Your task to perform on an android device: Toggle the flashlight Image 0: 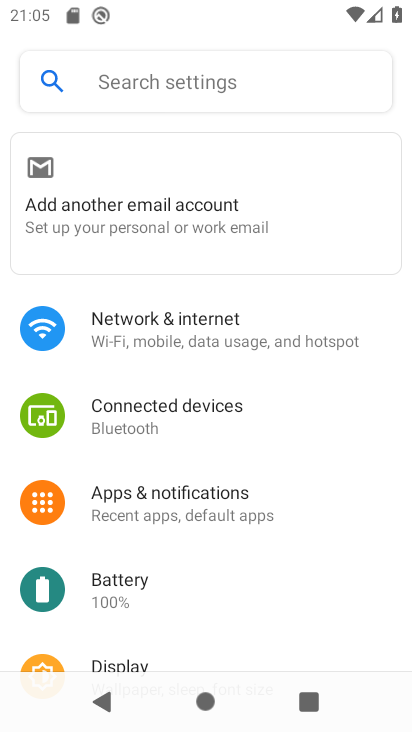
Step 0: click (291, 83)
Your task to perform on an android device: Toggle the flashlight Image 1: 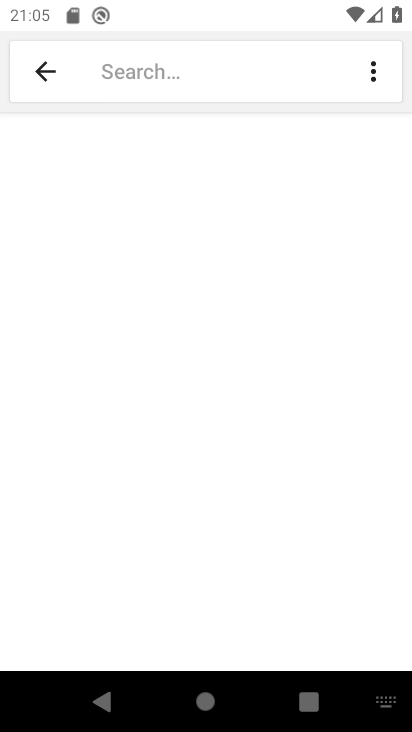
Step 1: type "Flashlight"
Your task to perform on an android device: Toggle the flashlight Image 2: 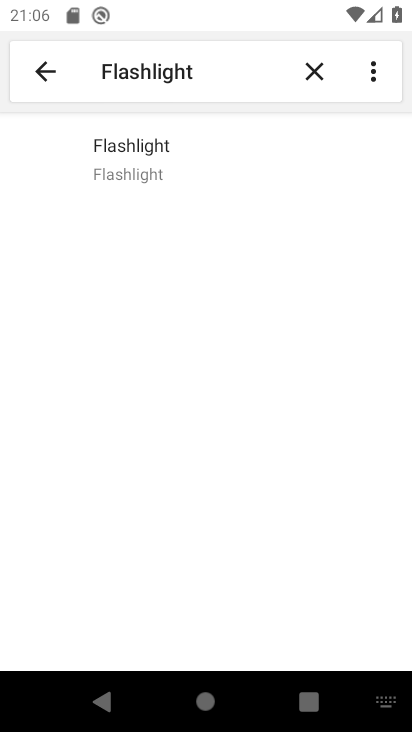
Step 2: click (134, 153)
Your task to perform on an android device: Toggle the flashlight Image 3: 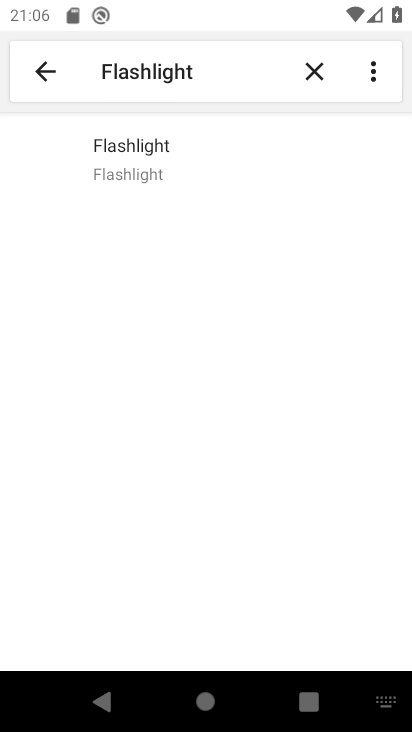
Step 3: task complete